Your task to perform on an android device: set default search engine in the chrome app Image 0: 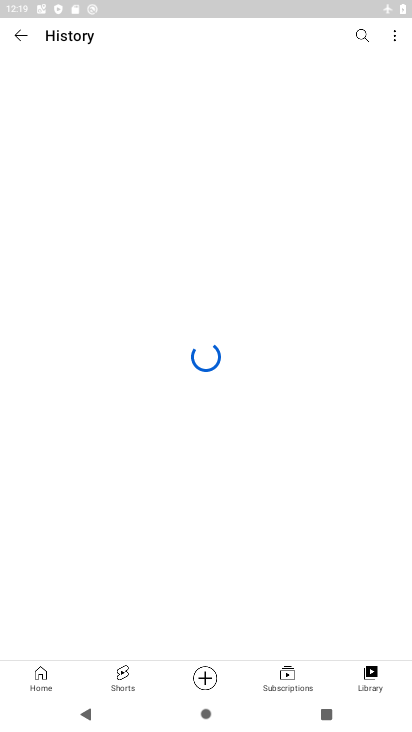
Step 0: press home button
Your task to perform on an android device: set default search engine in the chrome app Image 1: 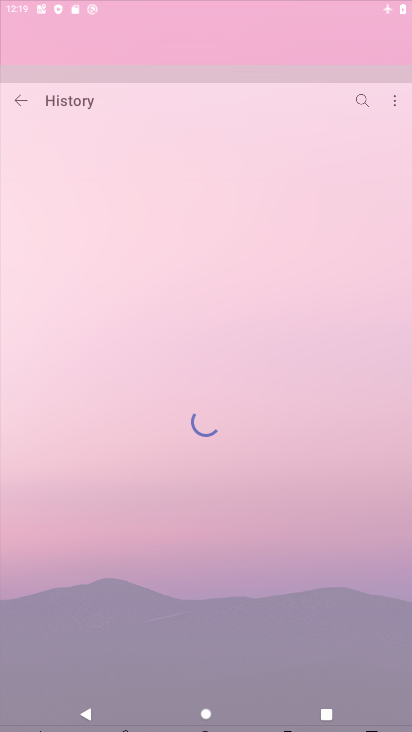
Step 1: drag from (249, 612) to (325, 1)
Your task to perform on an android device: set default search engine in the chrome app Image 2: 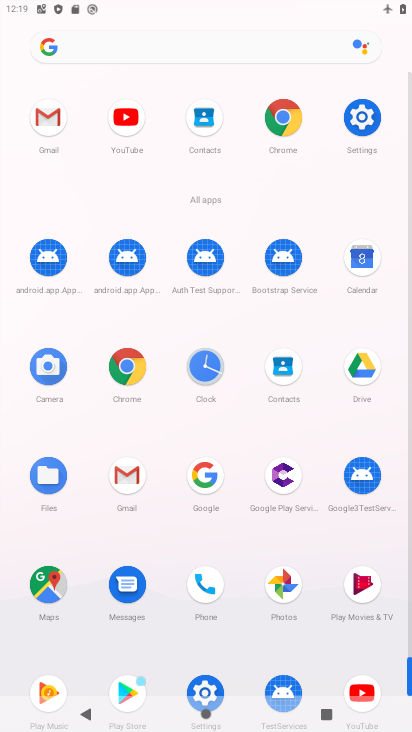
Step 2: click (128, 357)
Your task to perform on an android device: set default search engine in the chrome app Image 3: 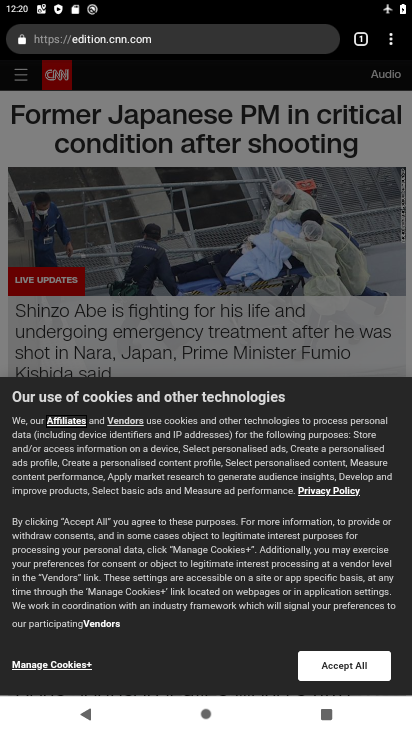
Step 3: drag from (395, 46) to (262, 440)
Your task to perform on an android device: set default search engine in the chrome app Image 4: 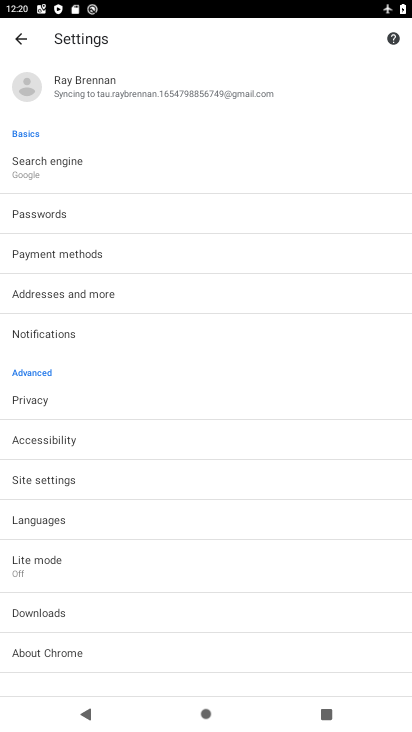
Step 4: click (89, 176)
Your task to perform on an android device: set default search engine in the chrome app Image 5: 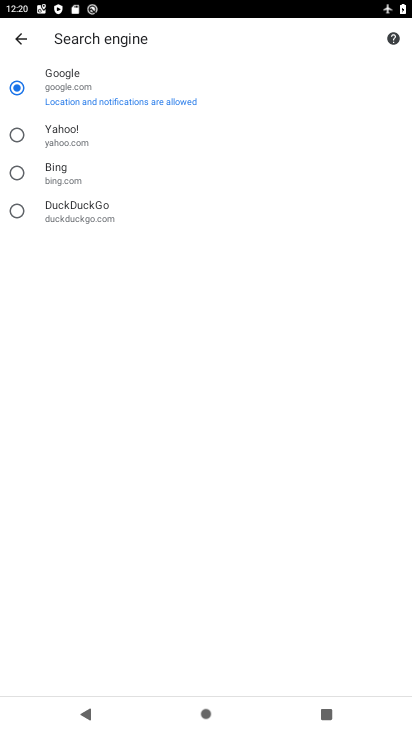
Step 5: click (120, 72)
Your task to perform on an android device: set default search engine in the chrome app Image 6: 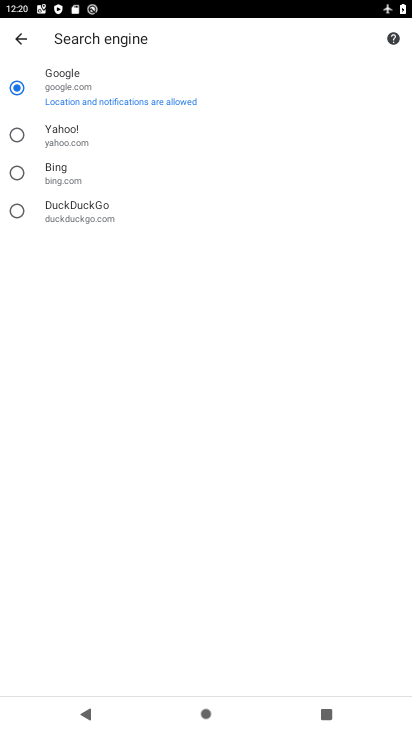
Step 6: task complete